Your task to perform on an android device: What's the weather? Image 0: 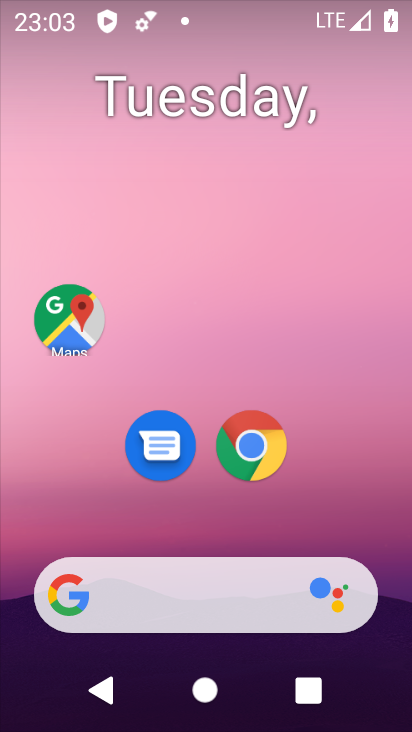
Step 0: click (219, 597)
Your task to perform on an android device: What's the weather? Image 1: 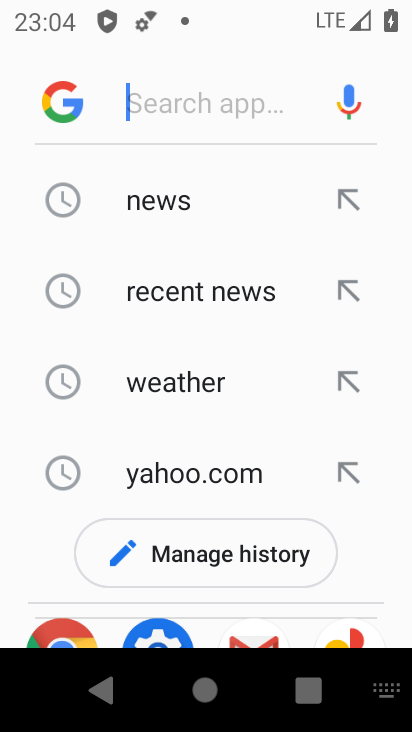
Step 1: type "what's the weather"
Your task to perform on an android device: What's the weather? Image 2: 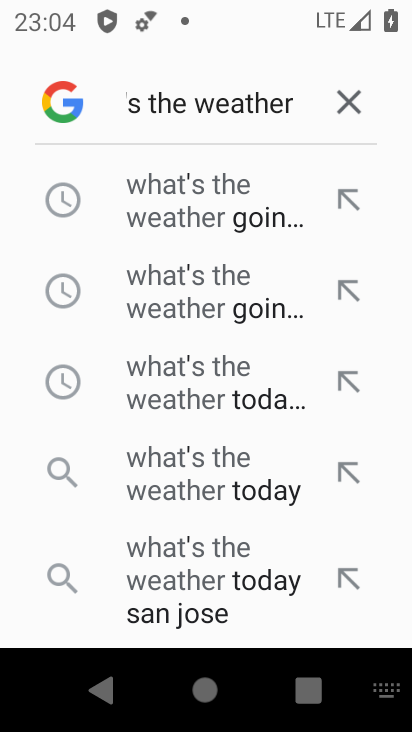
Step 2: drag from (268, 578) to (325, 196)
Your task to perform on an android device: What's the weather? Image 3: 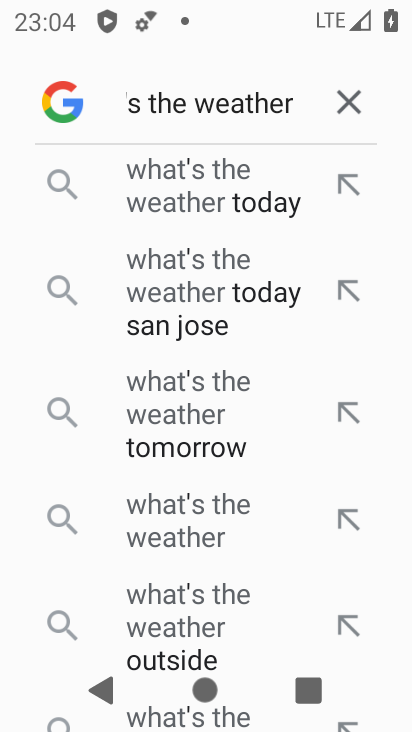
Step 3: click (188, 537)
Your task to perform on an android device: What's the weather? Image 4: 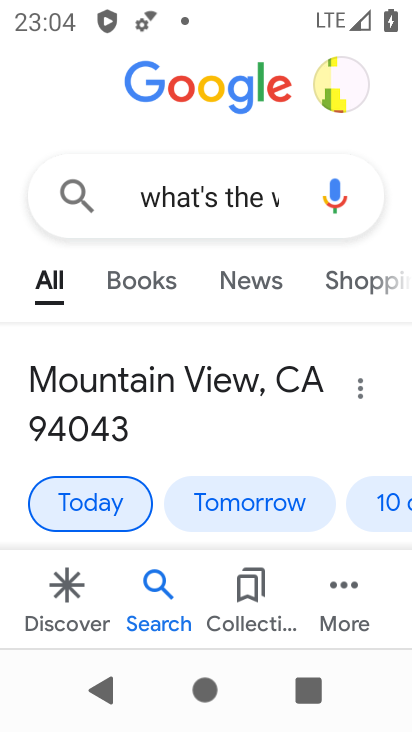
Step 4: task complete